Your task to perform on an android device: search for starred emails in the gmail app Image 0: 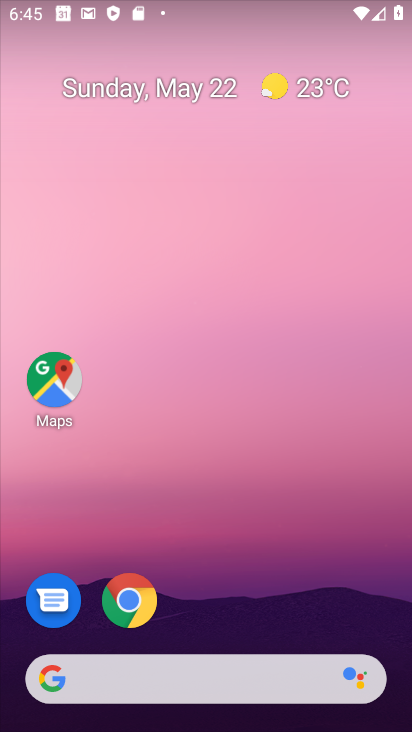
Step 0: drag from (352, 610) to (256, 0)
Your task to perform on an android device: search for starred emails in the gmail app Image 1: 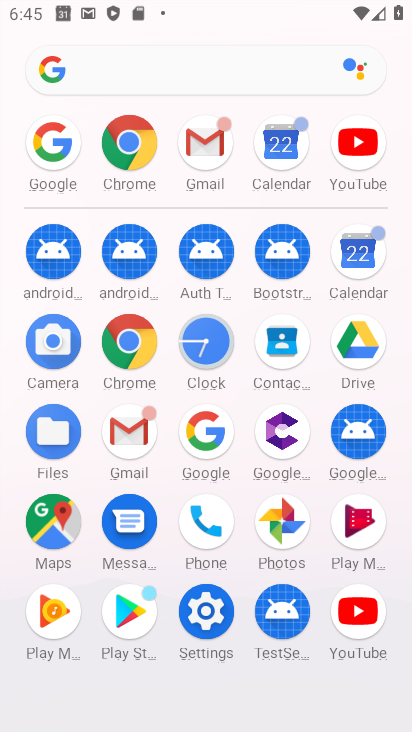
Step 1: click (120, 442)
Your task to perform on an android device: search for starred emails in the gmail app Image 2: 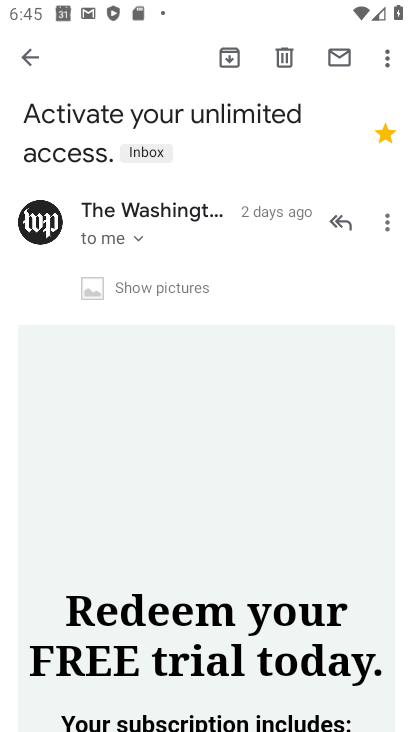
Step 2: press back button
Your task to perform on an android device: search for starred emails in the gmail app Image 3: 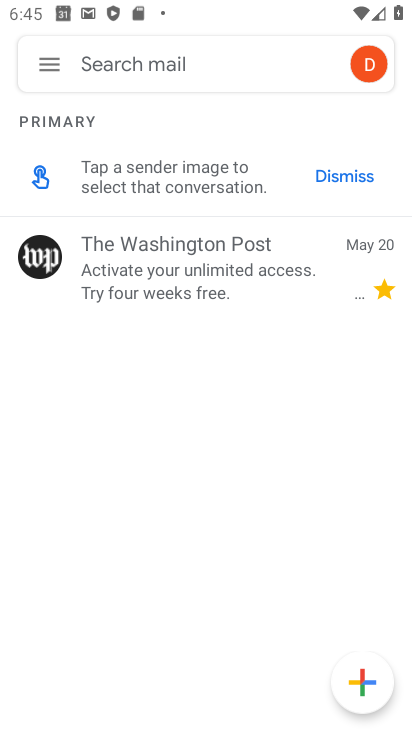
Step 3: click (44, 56)
Your task to perform on an android device: search for starred emails in the gmail app Image 4: 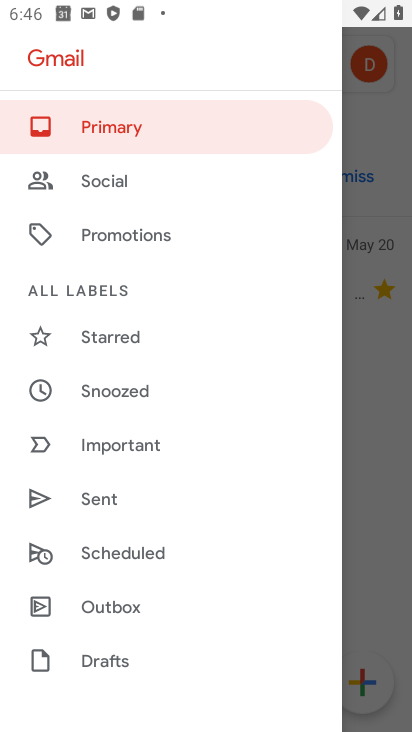
Step 4: click (130, 345)
Your task to perform on an android device: search for starred emails in the gmail app Image 5: 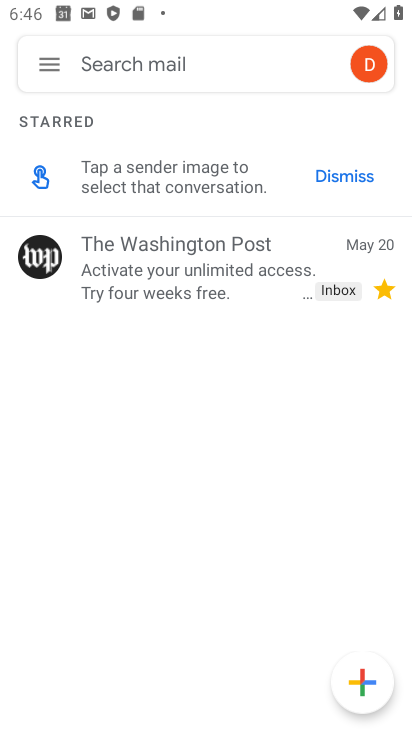
Step 5: task complete